Your task to perform on an android device: add a contact Image 0: 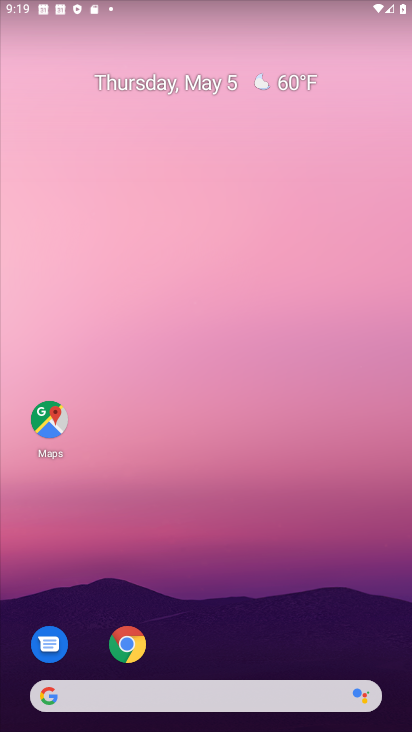
Step 0: drag from (200, 593) to (140, 4)
Your task to perform on an android device: add a contact Image 1: 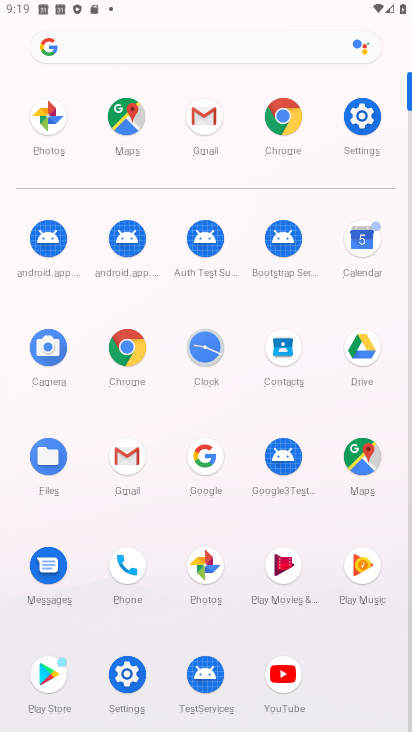
Step 1: drag from (168, 611) to (173, 368)
Your task to perform on an android device: add a contact Image 2: 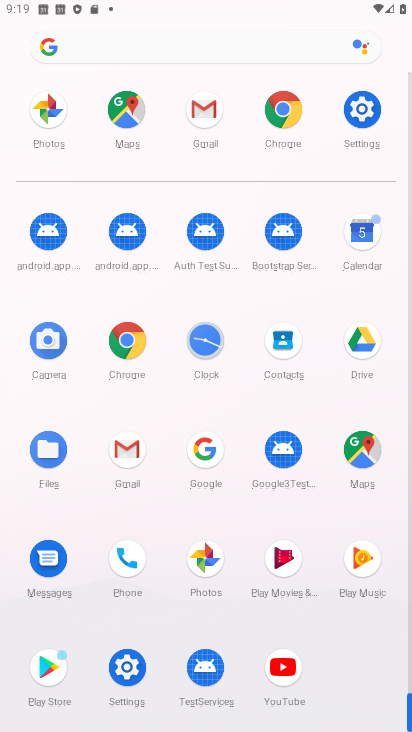
Step 2: click (282, 329)
Your task to perform on an android device: add a contact Image 3: 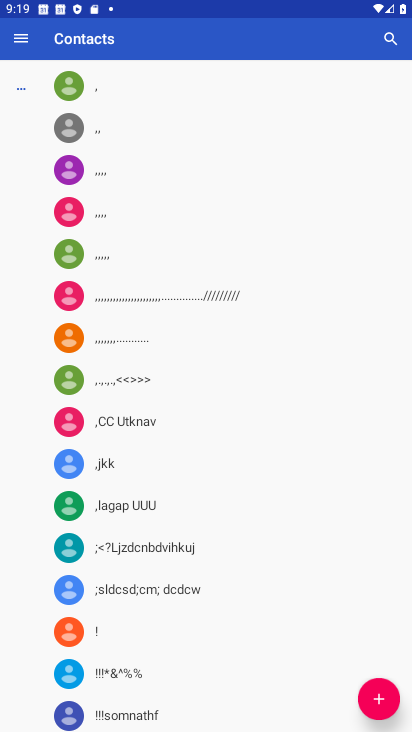
Step 3: drag from (226, 507) to (204, 153)
Your task to perform on an android device: add a contact Image 4: 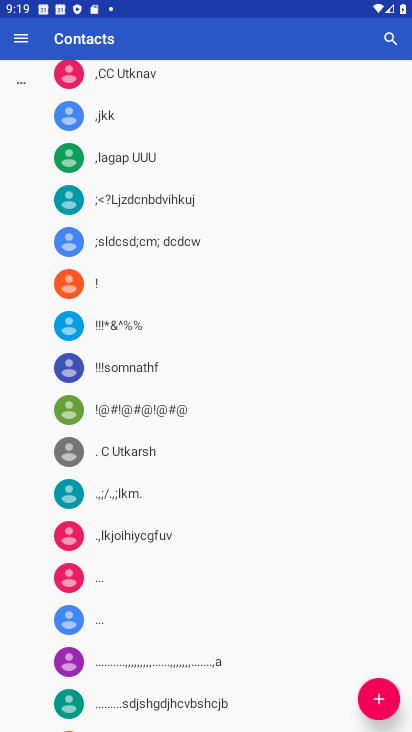
Step 4: click (14, 31)
Your task to perform on an android device: add a contact Image 5: 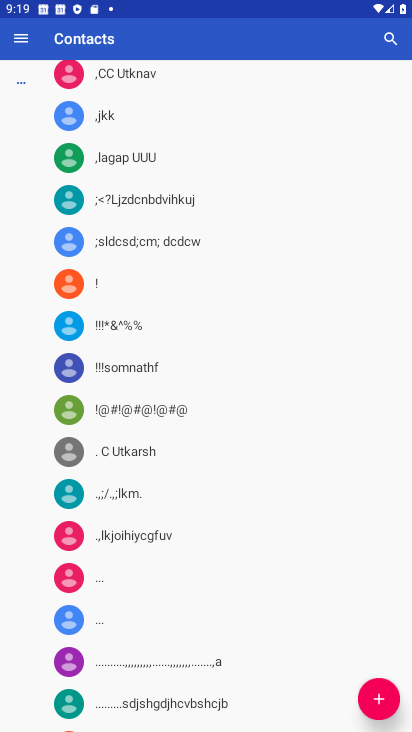
Step 5: click (376, 680)
Your task to perform on an android device: add a contact Image 6: 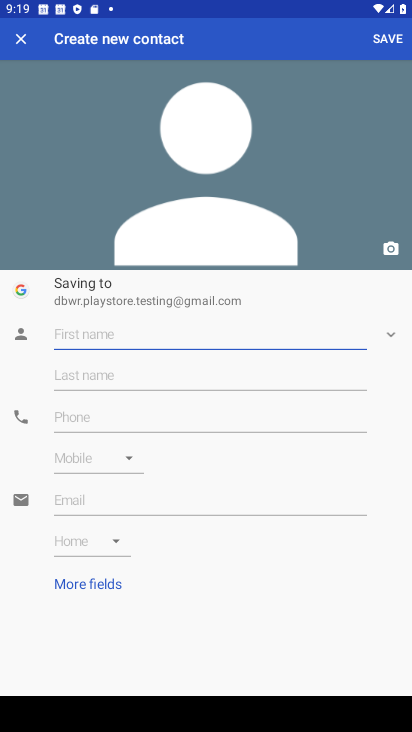
Step 6: click (155, 331)
Your task to perform on an android device: add a contact Image 7: 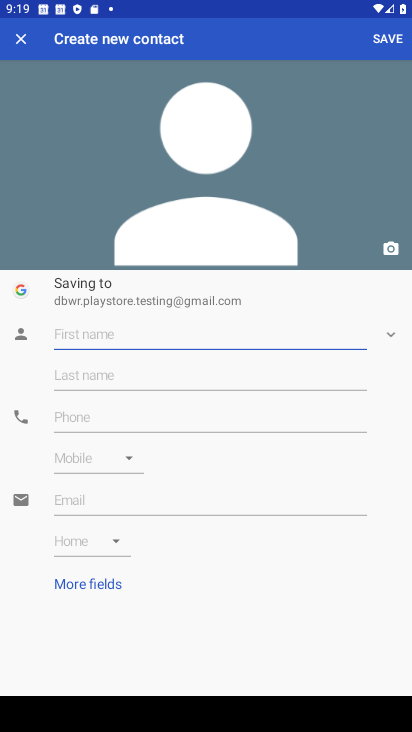
Step 7: type "ttt"
Your task to perform on an android device: add a contact Image 8: 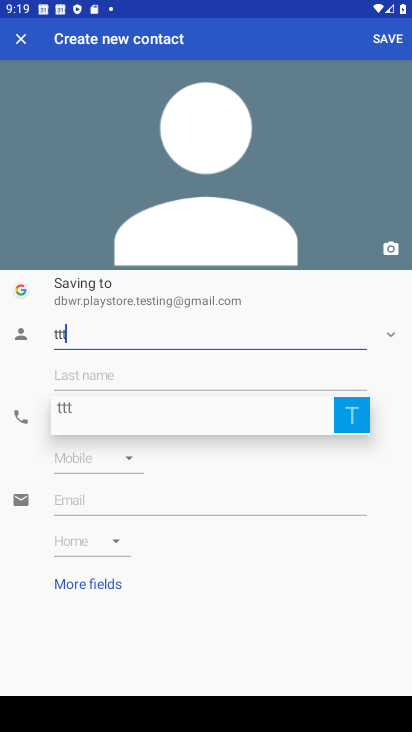
Step 8: click (163, 409)
Your task to perform on an android device: add a contact Image 9: 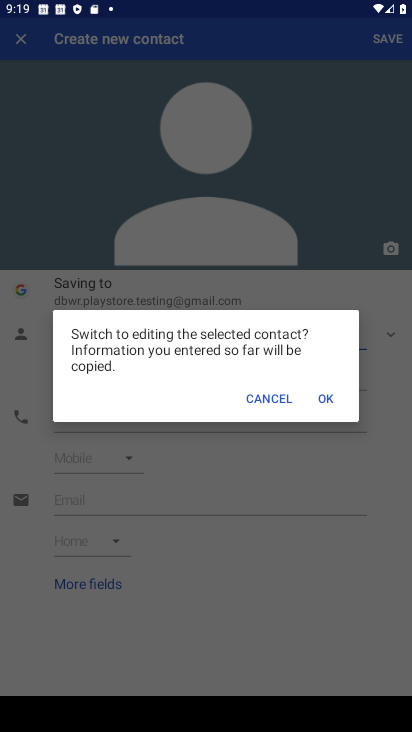
Step 9: click (324, 413)
Your task to perform on an android device: add a contact Image 10: 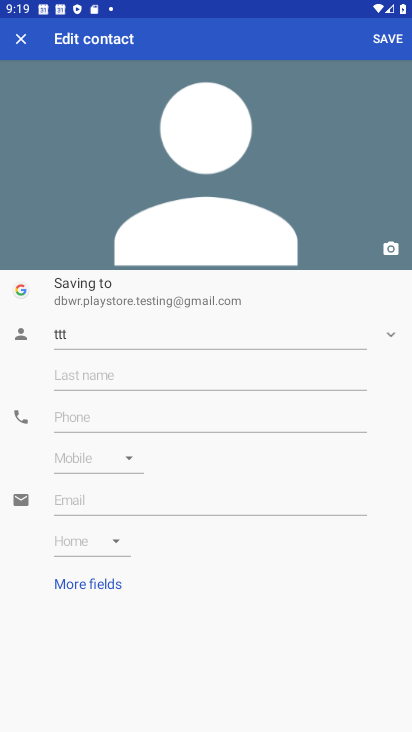
Step 10: click (374, 44)
Your task to perform on an android device: add a contact Image 11: 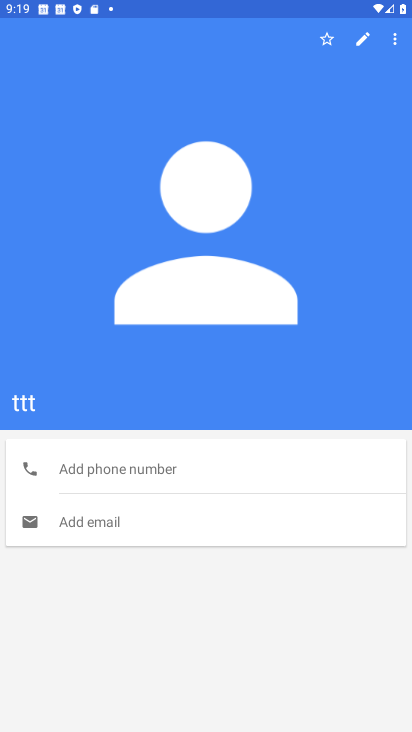
Step 11: task complete